Your task to perform on an android device: Go to notification settings Image 0: 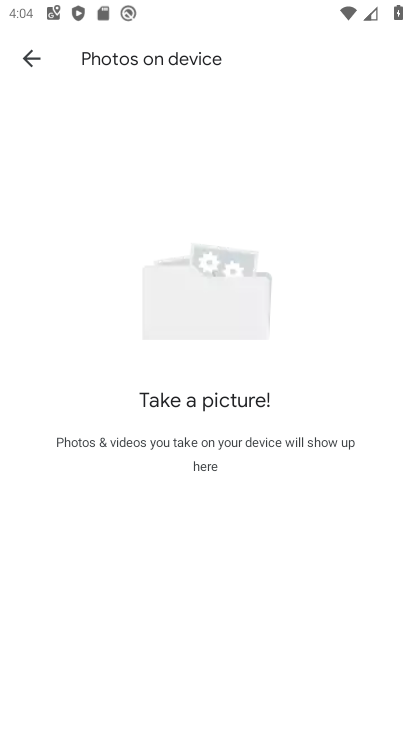
Step 0: press home button
Your task to perform on an android device: Go to notification settings Image 1: 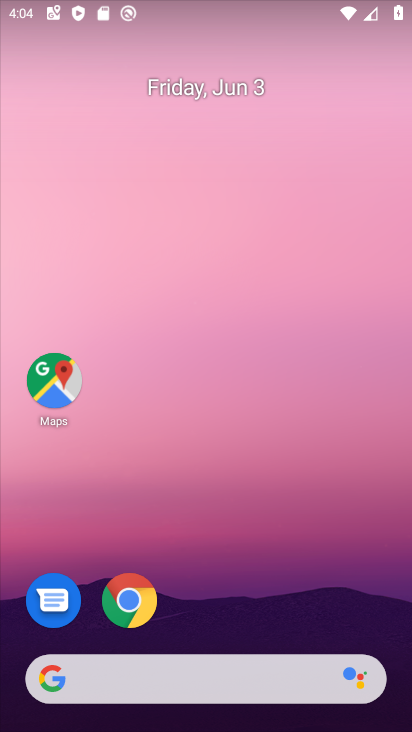
Step 1: drag from (232, 615) to (313, 8)
Your task to perform on an android device: Go to notification settings Image 2: 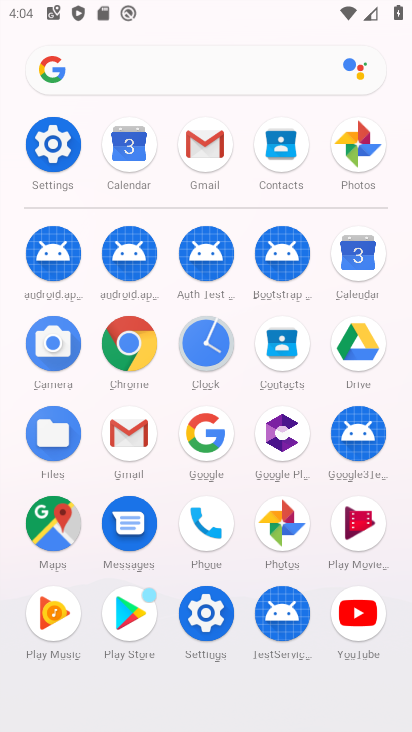
Step 2: click (59, 159)
Your task to perform on an android device: Go to notification settings Image 3: 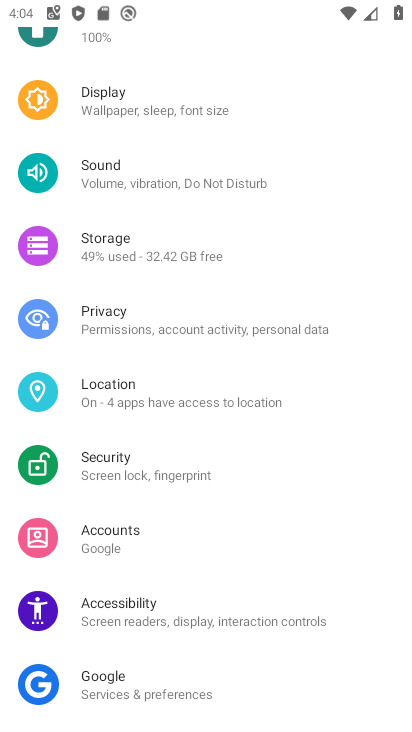
Step 3: drag from (178, 179) to (155, 653)
Your task to perform on an android device: Go to notification settings Image 4: 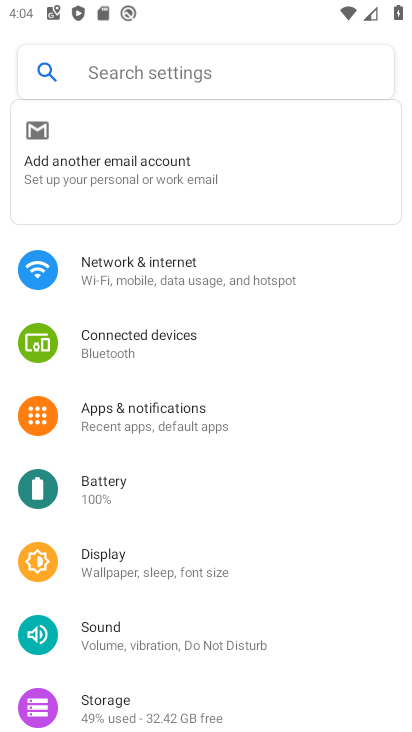
Step 4: drag from (178, 137) to (166, 397)
Your task to perform on an android device: Go to notification settings Image 5: 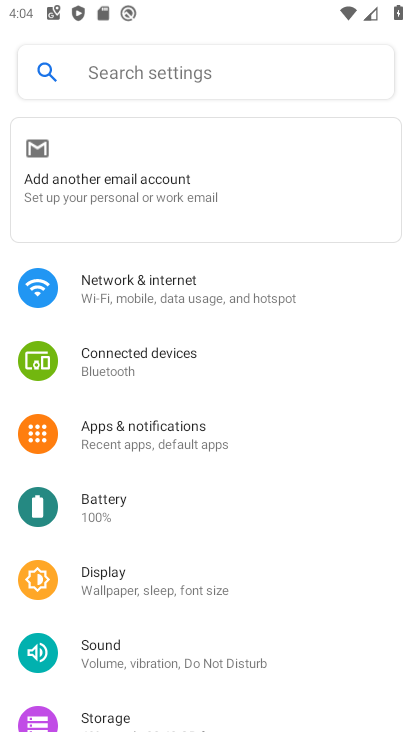
Step 5: click (161, 429)
Your task to perform on an android device: Go to notification settings Image 6: 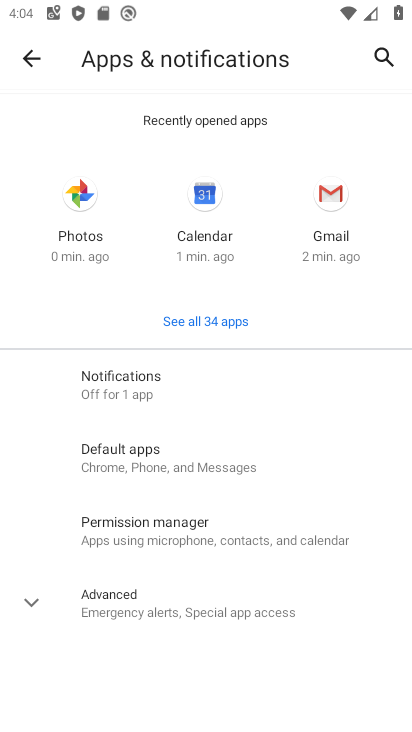
Step 6: click (164, 391)
Your task to perform on an android device: Go to notification settings Image 7: 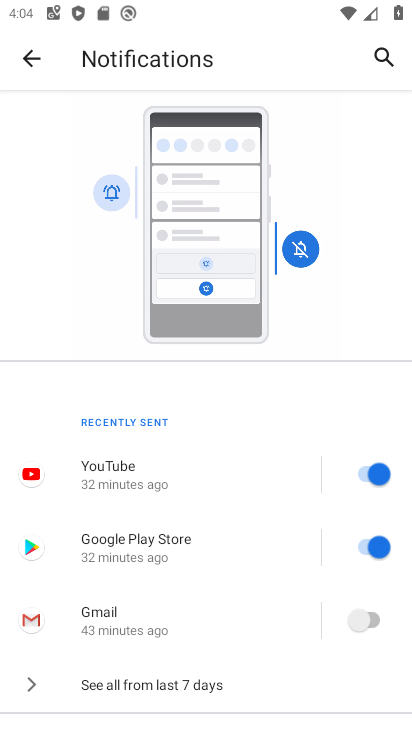
Step 7: task complete